Your task to perform on an android device: refresh tabs in the chrome app Image 0: 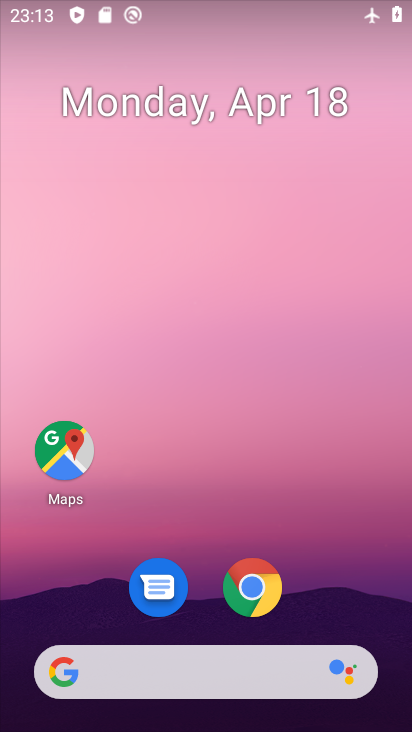
Step 0: drag from (337, 574) to (332, 131)
Your task to perform on an android device: refresh tabs in the chrome app Image 1: 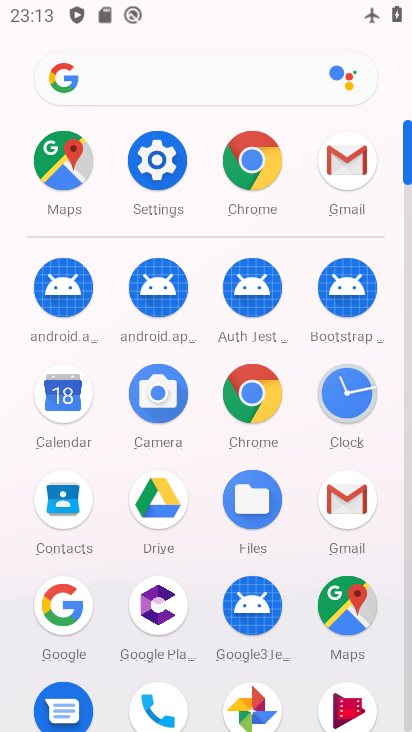
Step 1: click (267, 399)
Your task to perform on an android device: refresh tabs in the chrome app Image 2: 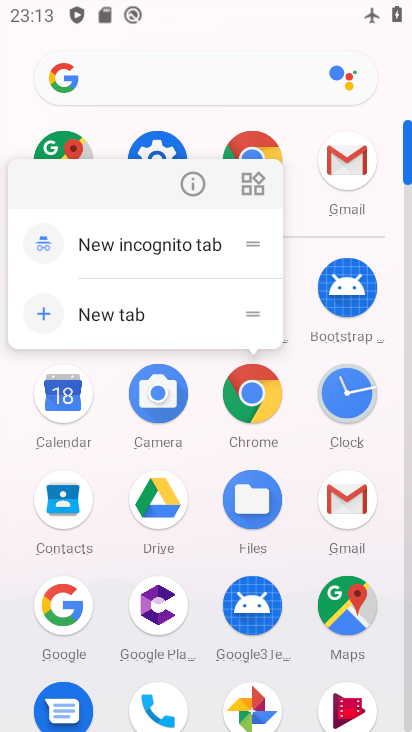
Step 2: click (267, 399)
Your task to perform on an android device: refresh tabs in the chrome app Image 3: 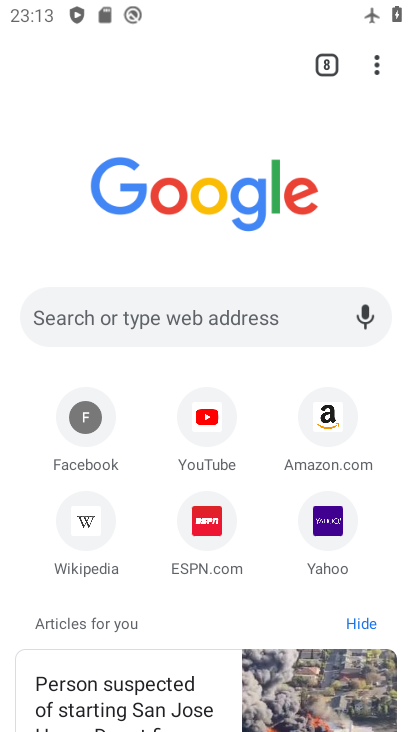
Step 3: click (373, 72)
Your task to perform on an android device: refresh tabs in the chrome app Image 4: 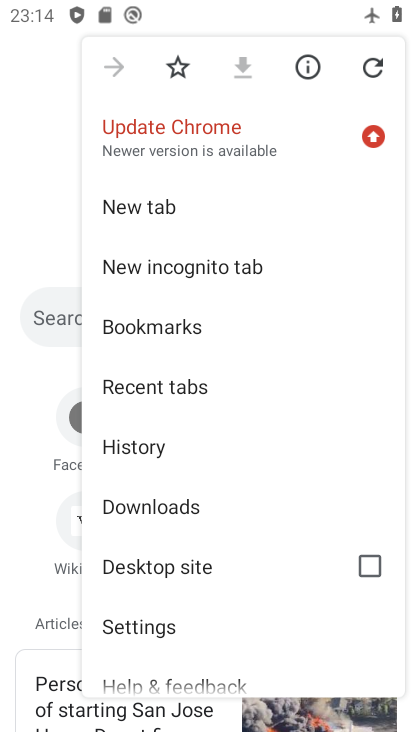
Step 4: click (373, 72)
Your task to perform on an android device: refresh tabs in the chrome app Image 5: 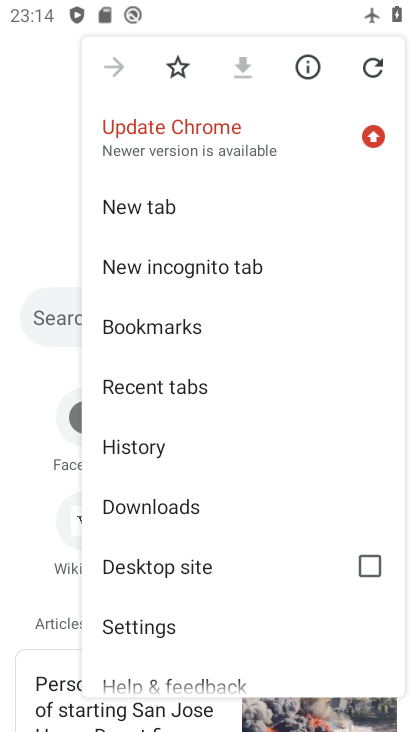
Step 5: task complete